Your task to perform on an android device: change the clock display to show seconds Image 0: 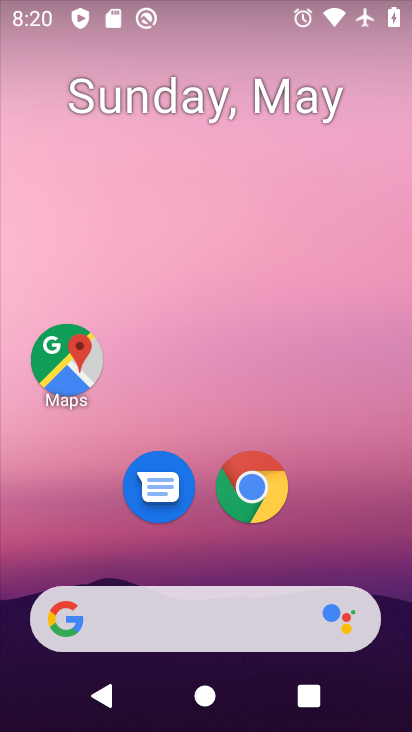
Step 0: drag from (229, 350) to (264, 76)
Your task to perform on an android device: change the clock display to show seconds Image 1: 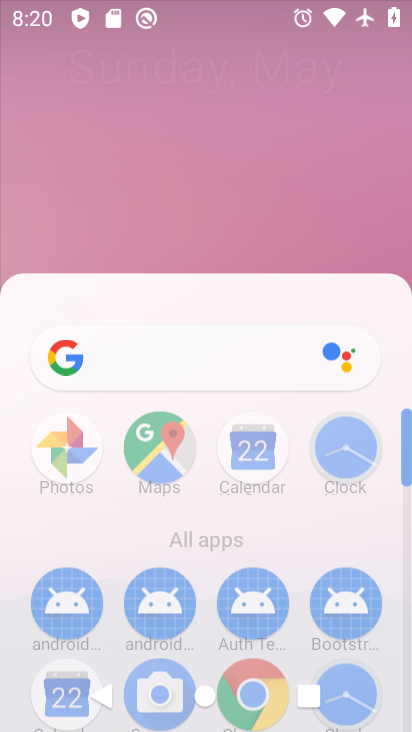
Step 1: drag from (190, 557) to (271, 178)
Your task to perform on an android device: change the clock display to show seconds Image 2: 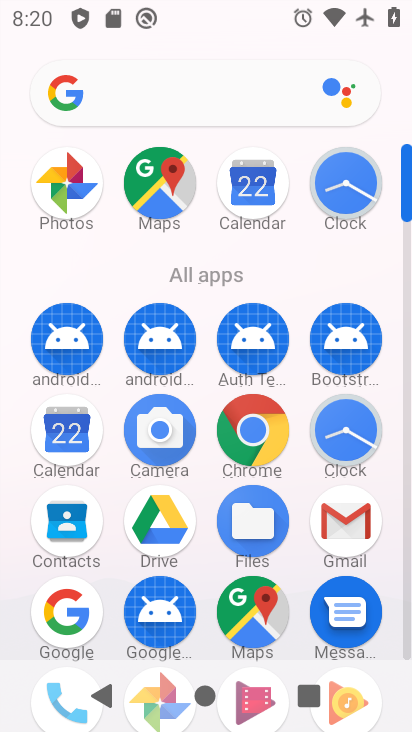
Step 2: drag from (224, 263) to (231, 192)
Your task to perform on an android device: change the clock display to show seconds Image 3: 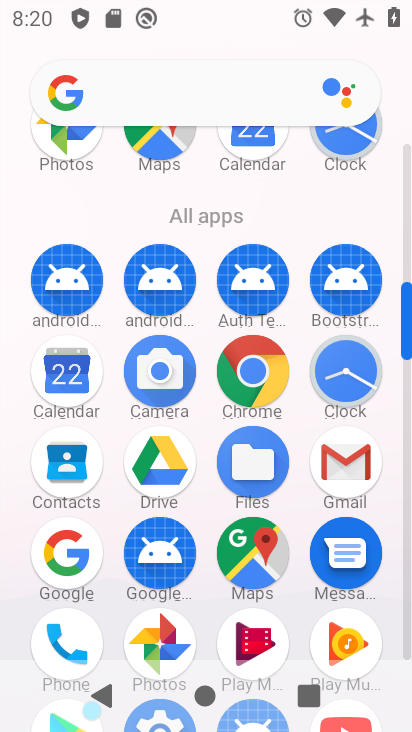
Step 3: click (364, 351)
Your task to perform on an android device: change the clock display to show seconds Image 4: 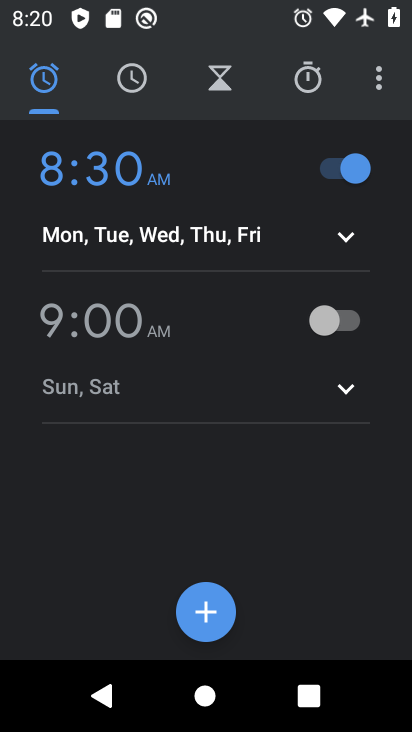
Step 4: click (369, 82)
Your task to perform on an android device: change the clock display to show seconds Image 5: 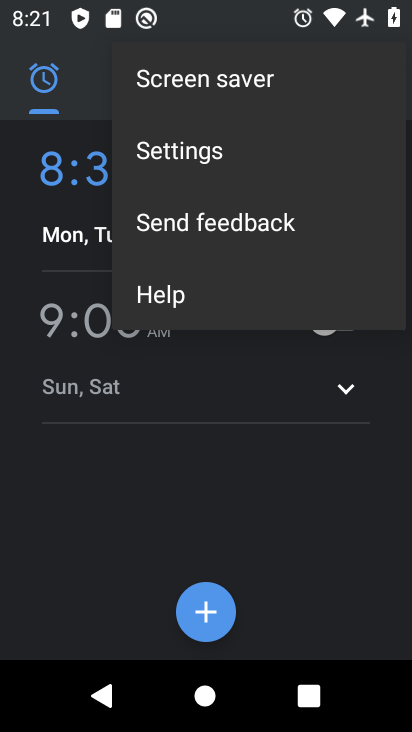
Step 5: click (193, 142)
Your task to perform on an android device: change the clock display to show seconds Image 6: 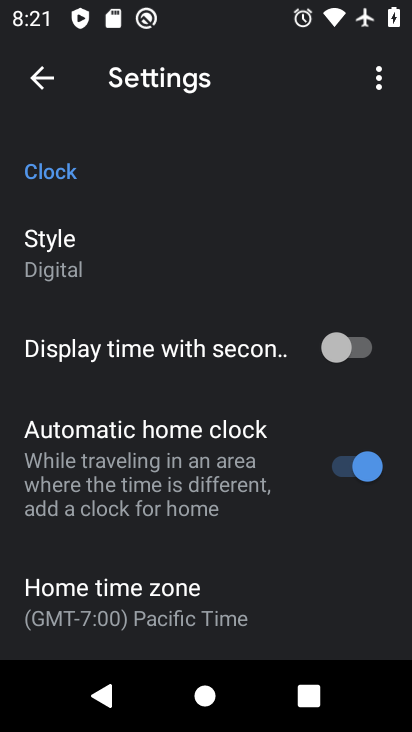
Step 6: click (361, 340)
Your task to perform on an android device: change the clock display to show seconds Image 7: 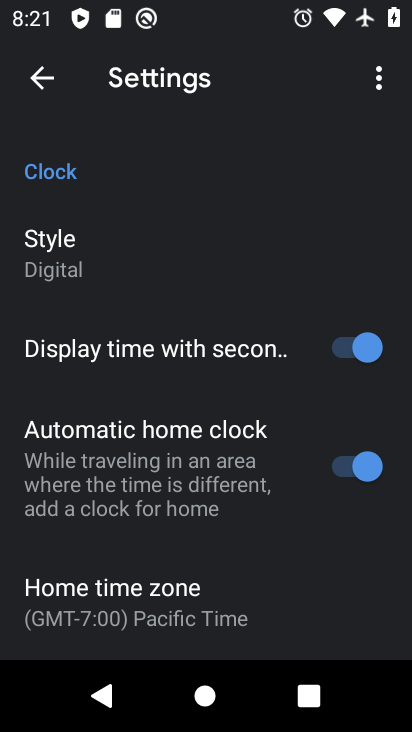
Step 7: task complete